Your task to perform on an android device: Show the shopping cart on target. Search for "bose soundlink mini" on target, select the first entry, add it to the cart, then select checkout. Image 0: 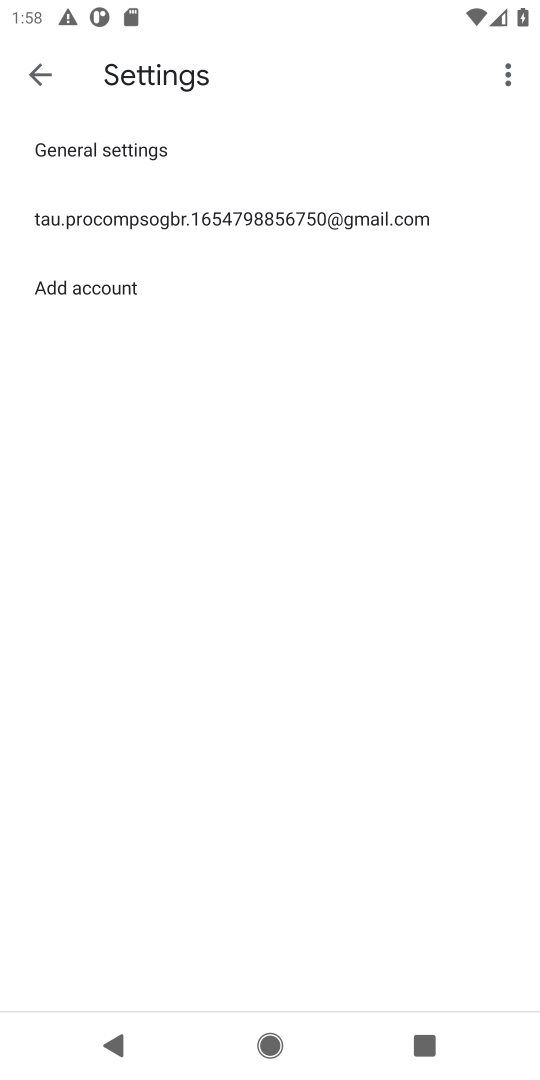
Step 0: press home button
Your task to perform on an android device: Show the shopping cart on target. Search for "bose soundlink mini" on target, select the first entry, add it to the cart, then select checkout. Image 1: 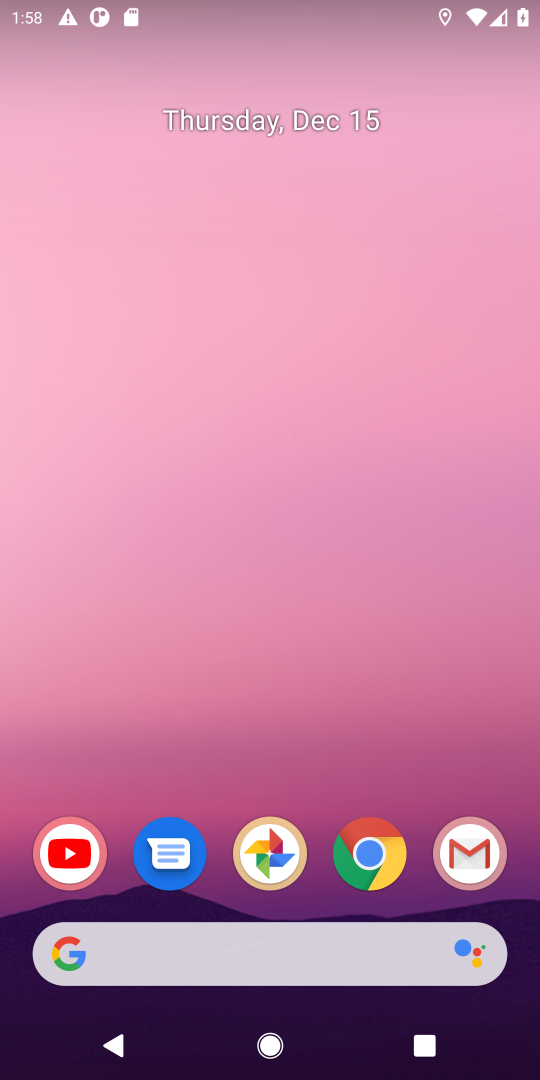
Step 1: drag from (234, 945) to (308, 231)
Your task to perform on an android device: Show the shopping cart on target. Search for "bose soundlink mini" on target, select the first entry, add it to the cart, then select checkout. Image 2: 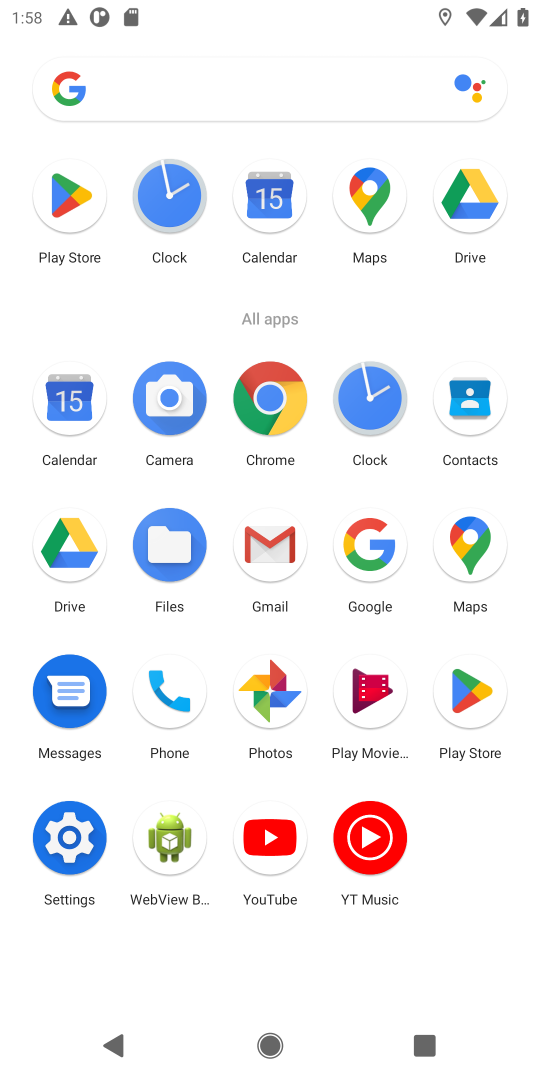
Step 2: click (363, 569)
Your task to perform on an android device: Show the shopping cart on target. Search for "bose soundlink mini" on target, select the first entry, add it to the cart, then select checkout. Image 3: 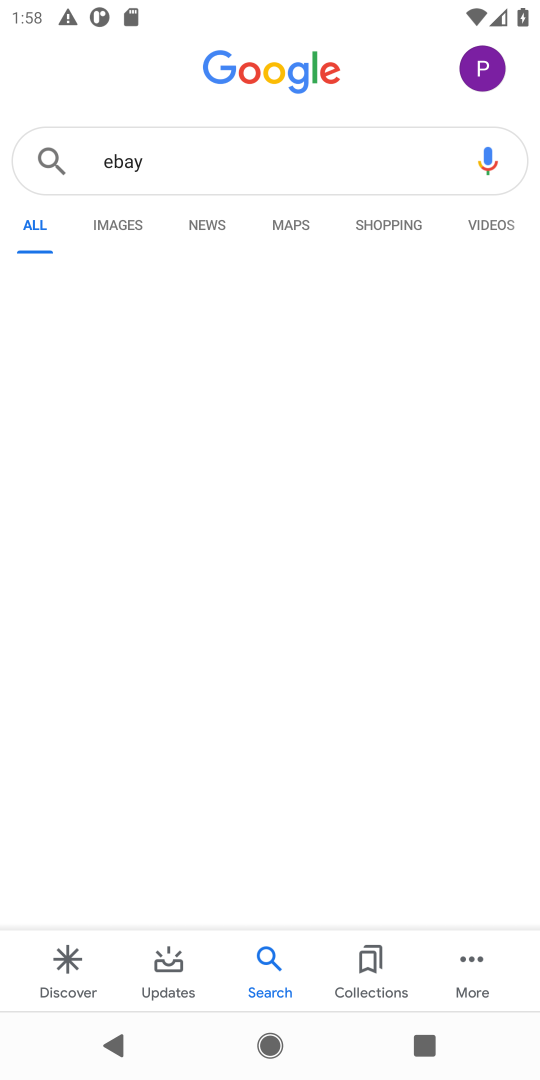
Step 3: click (143, 137)
Your task to perform on an android device: Show the shopping cart on target. Search for "bose soundlink mini" on target, select the first entry, add it to the cart, then select checkout. Image 4: 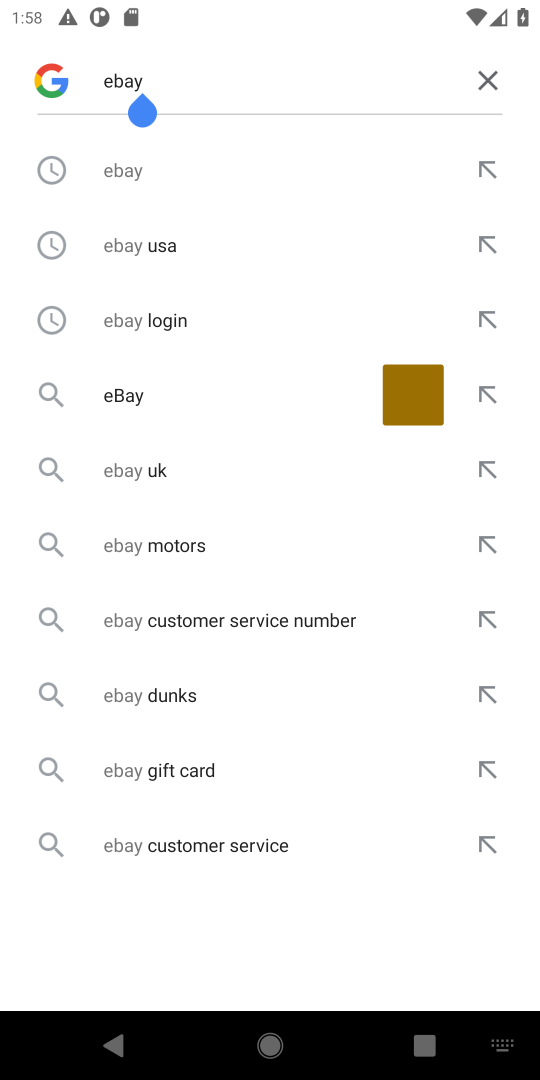
Step 4: click (484, 79)
Your task to perform on an android device: Show the shopping cart on target. Search for "bose soundlink mini" on target, select the first entry, add it to the cart, then select checkout. Image 5: 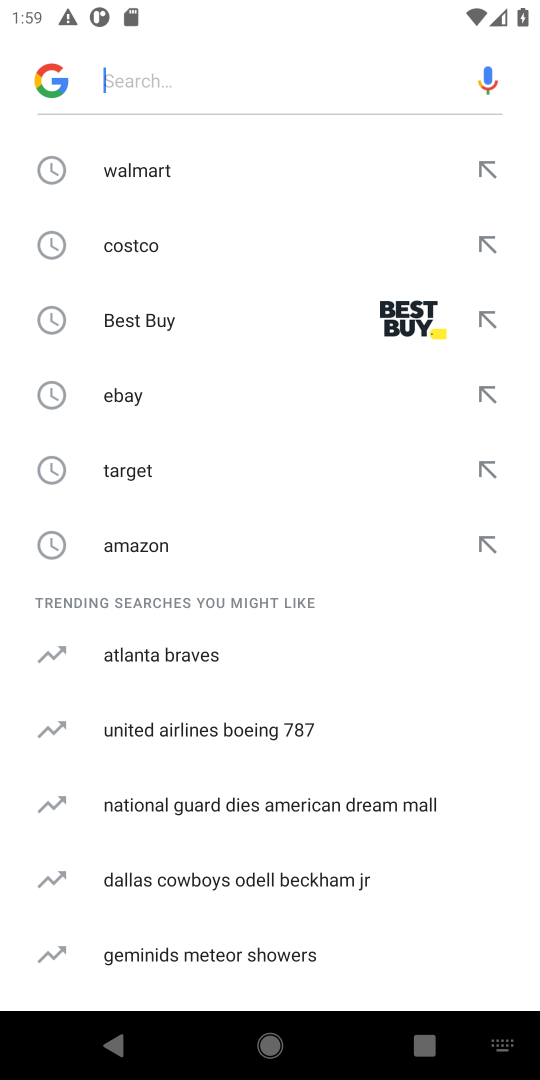
Step 5: click (135, 468)
Your task to perform on an android device: Show the shopping cart on target. Search for "bose soundlink mini" on target, select the first entry, add it to the cart, then select checkout. Image 6: 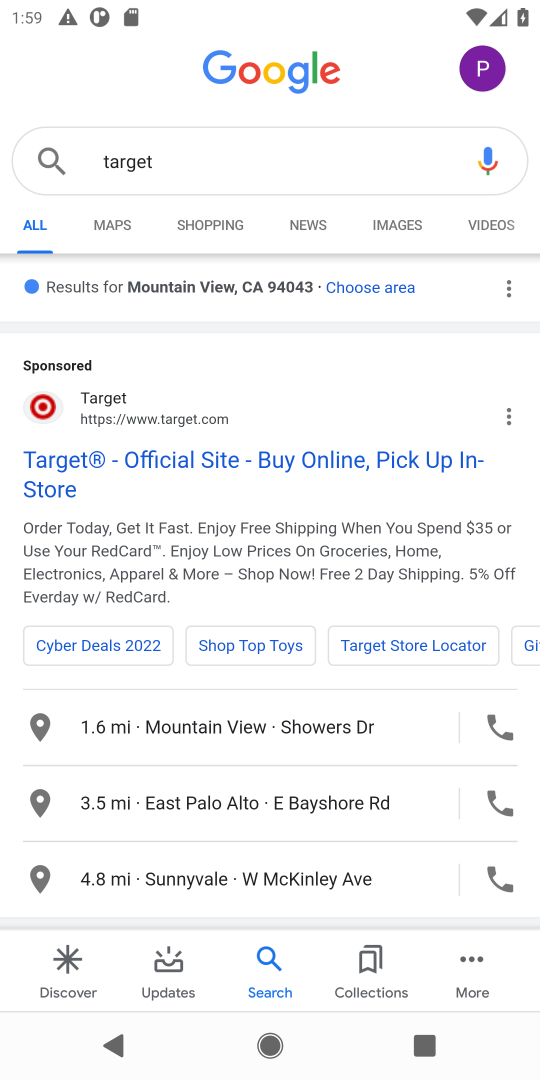
Step 6: click (126, 457)
Your task to perform on an android device: Show the shopping cart on target. Search for "bose soundlink mini" on target, select the first entry, add it to the cart, then select checkout. Image 7: 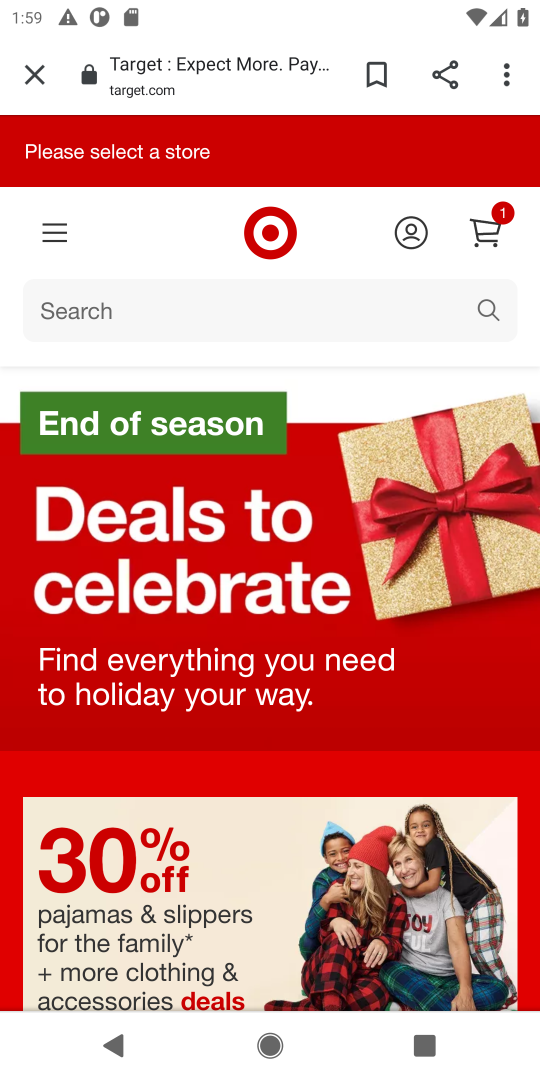
Step 7: click (508, 213)
Your task to perform on an android device: Show the shopping cart on target. Search for "bose soundlink mini" on target, select the first entry, add it to the cart, then select checkout. Image 8: 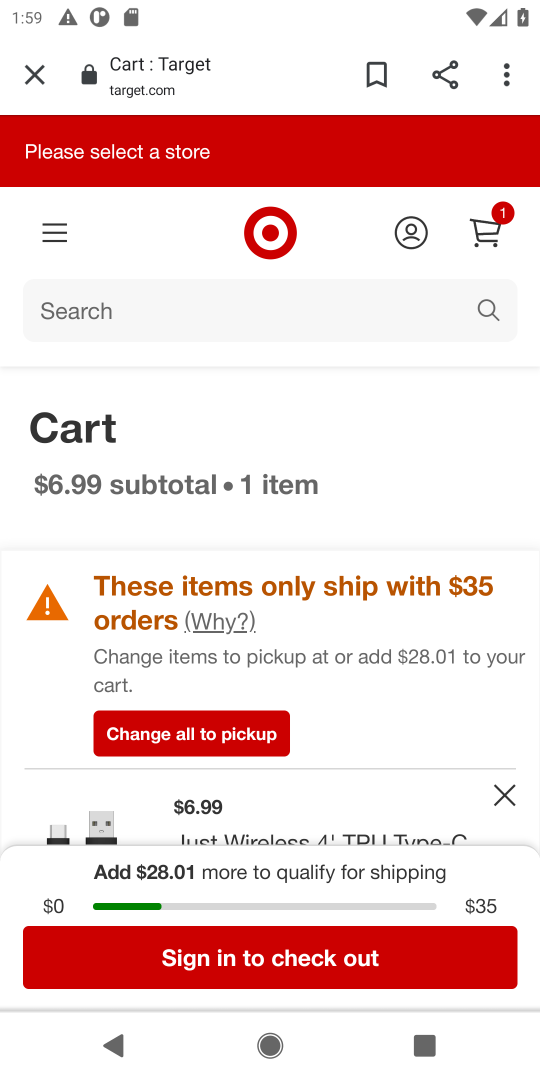
Step 8: click (495, 794)
Your task to perform on an android device: Show the shopping cart on target. Search for "bose soundlink mini" on target, select the first entry, add it to the cart, then select checkout. Image 9: 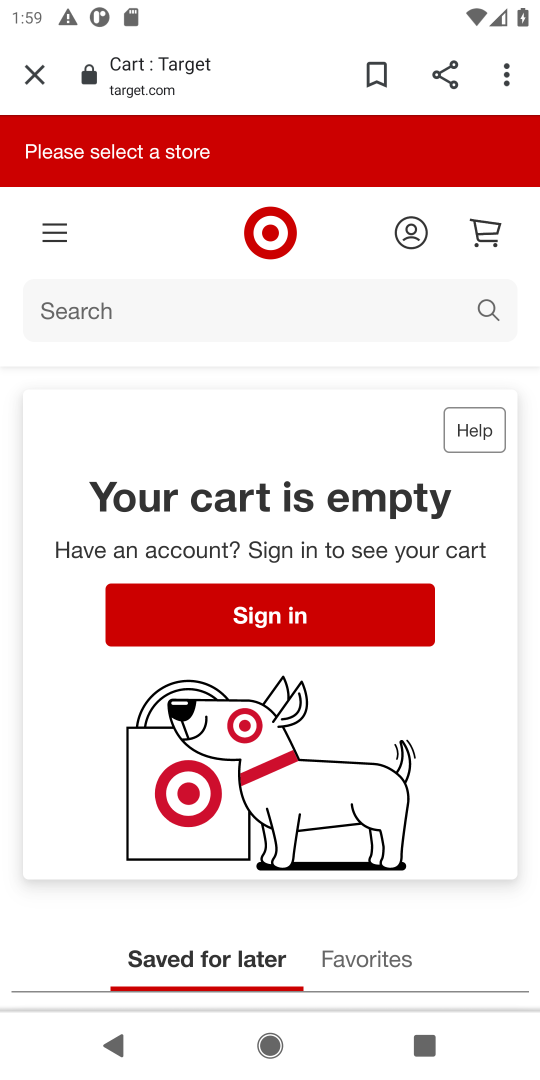
Step 9: type "bose soundlink mini"
Your task to perform on an android device: Show the shopping cart on target. Search for "bose soundlink mini" on target, select the first entry, add it to the cart, then select checkout. Image 10: 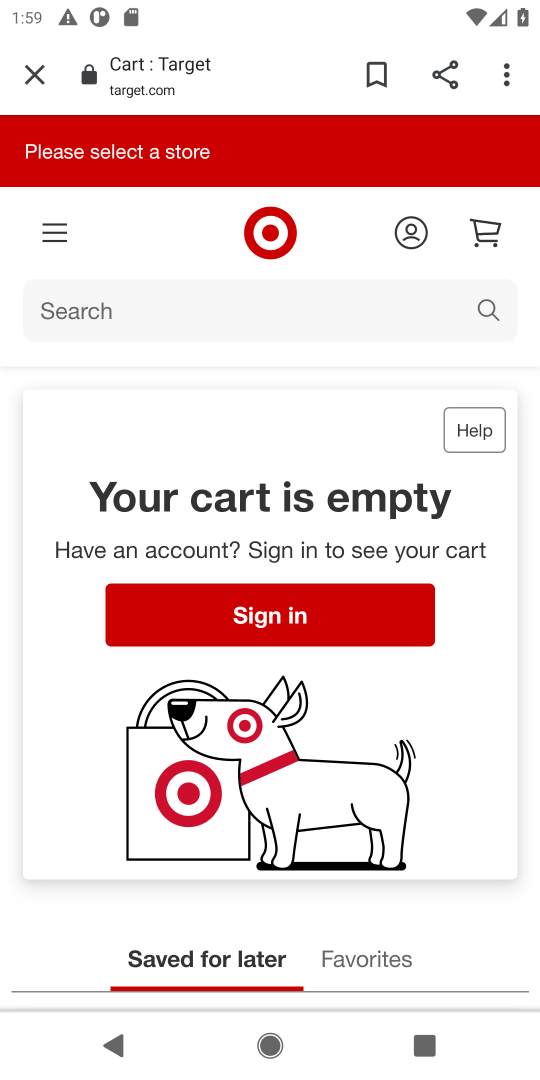
Step 10: click (117, 302)
Your task to perform on an android device: Show the shopping cart on target. Search for "bose soundlink mini" on target, select the first entry, add it to the cart, then select checkout. Image 11: 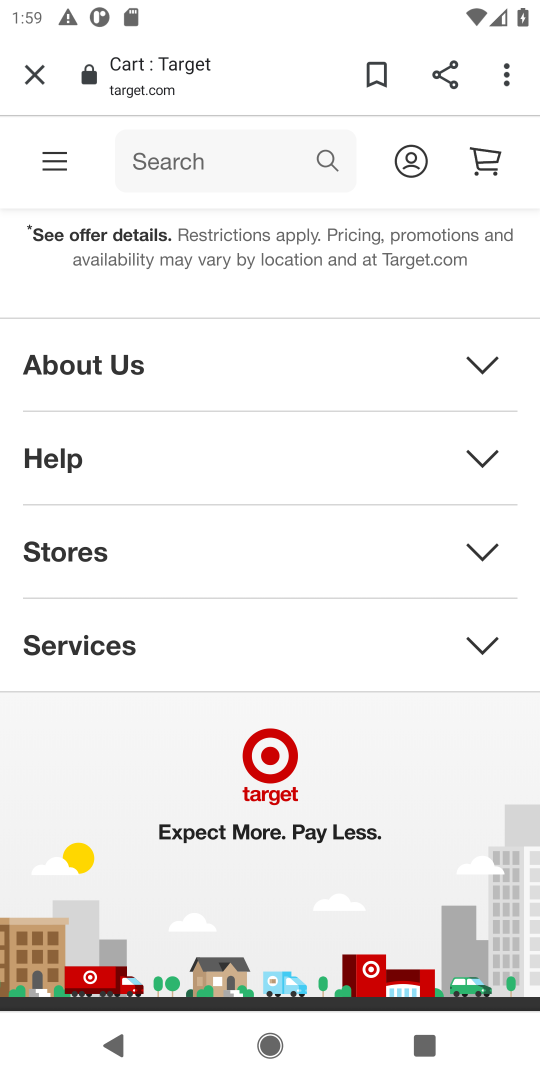
Step 11: click (160, 174)
Your task to perform on an android device: Show the shopping cart on target. Search for "bose soundlink mini" on target, select the first entry, add it to the cart, then select checkout. Image 12: 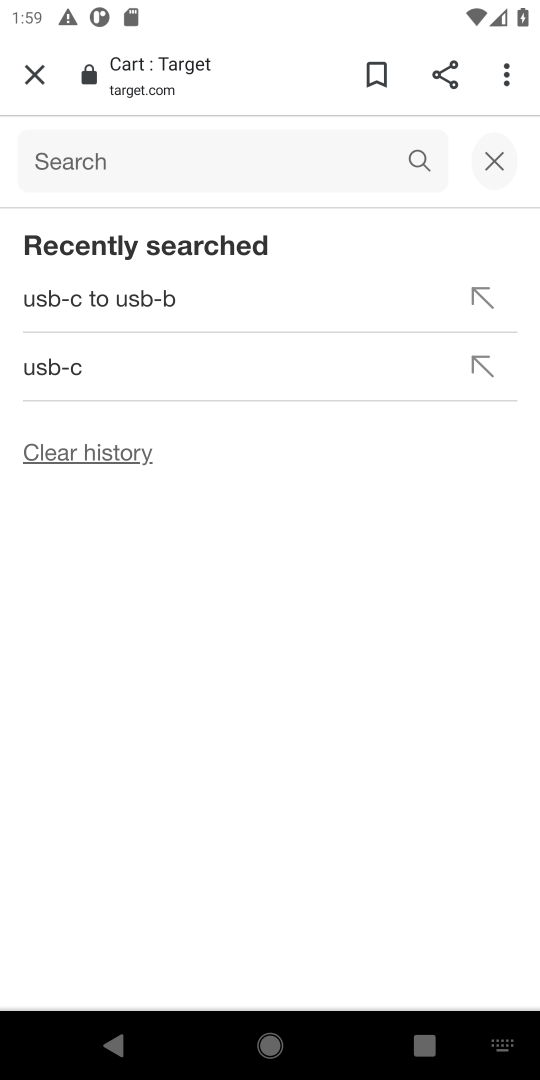
Step 12: type "bose soundlink mini"
Your task to perform on an android device: Show the shopping cart on target. Search for "bose soundlink mini" on target, select the first entry, add it to the cart, then select checkout. Image 13: 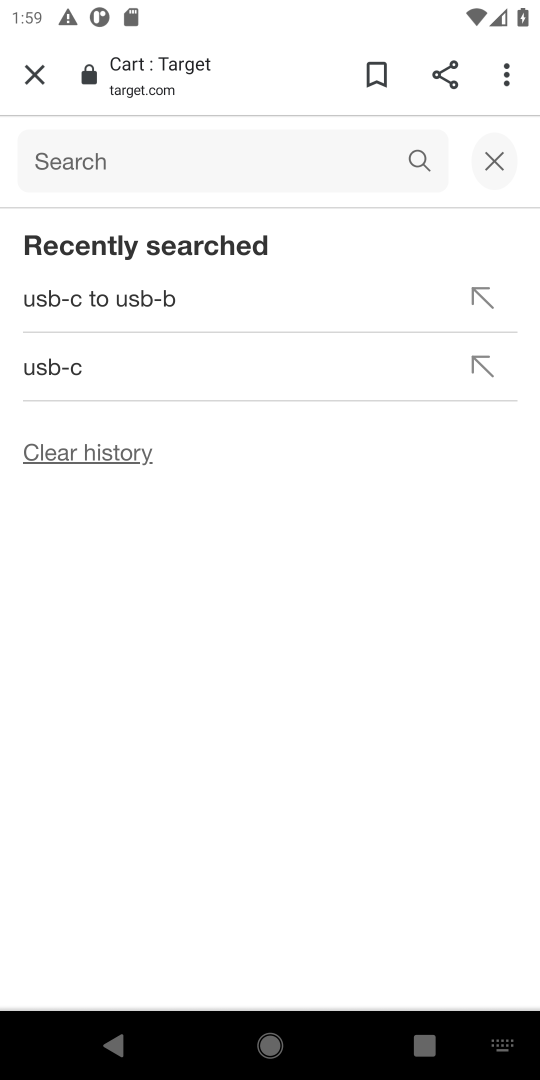
Step 13: click (417, 156)
Your task to perform on an android device: Show the shopping cart on target. Search for "bose soundlink mini" on target, select the first entry, add it to the cart, then select checkout. Image 14: 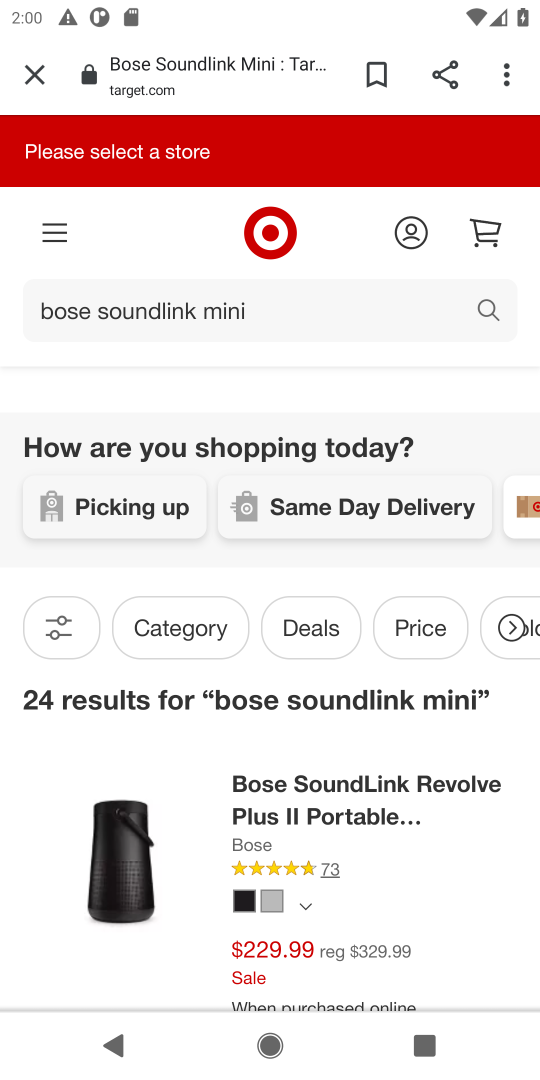
Step 14: drag from (347, 911) to (391, 453)
Your task to perform on an android device: Show the shopping cart on target. Search for "bose soundlink mini" on target, select the first entry, add it to the cart, then select checkout. Image 15: 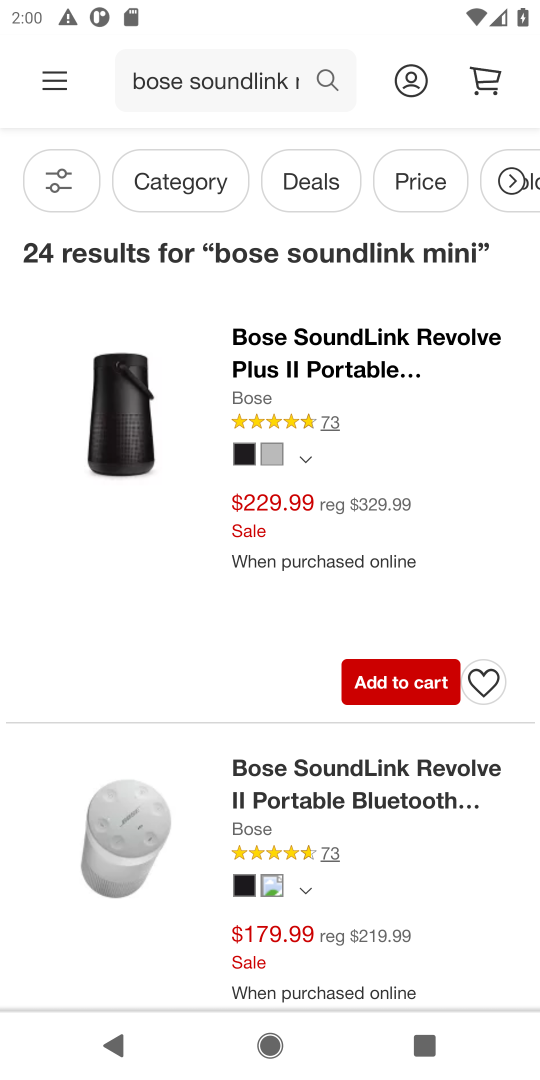
Step 15: click (417, 692)
Your task to perform on an android device: Show the shopping cart on target. Search for "bose soundlink mini" on target, select the first entry, add it to the cart, then select checkout. Image 16: 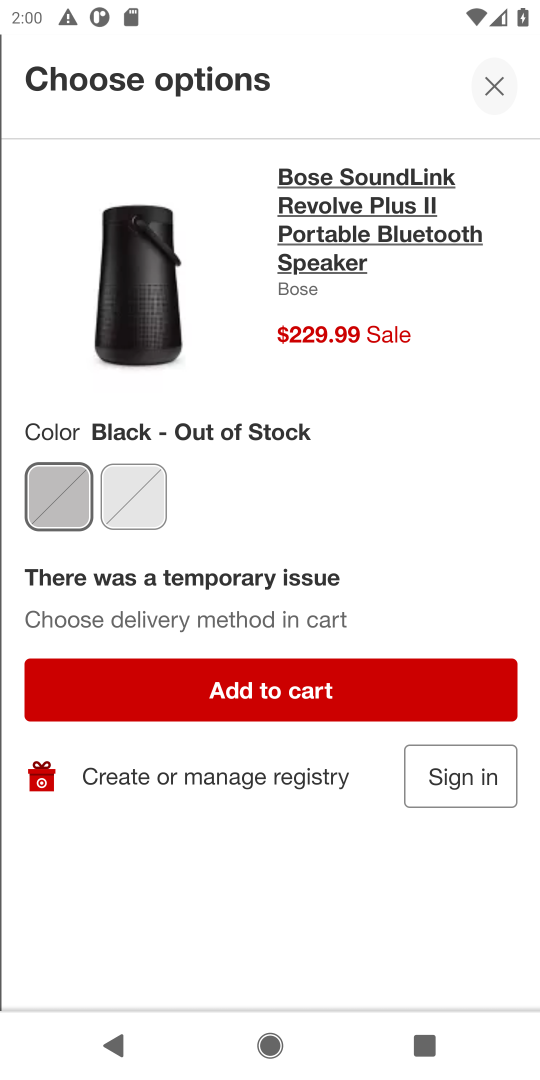
Step 16: click (312, 683)
Your task to perform on an android device: Show the shopping cart on target. Search for "bose soundlink mini" on target, select the first entry, add it to the cart, then select checkout. Image 17: 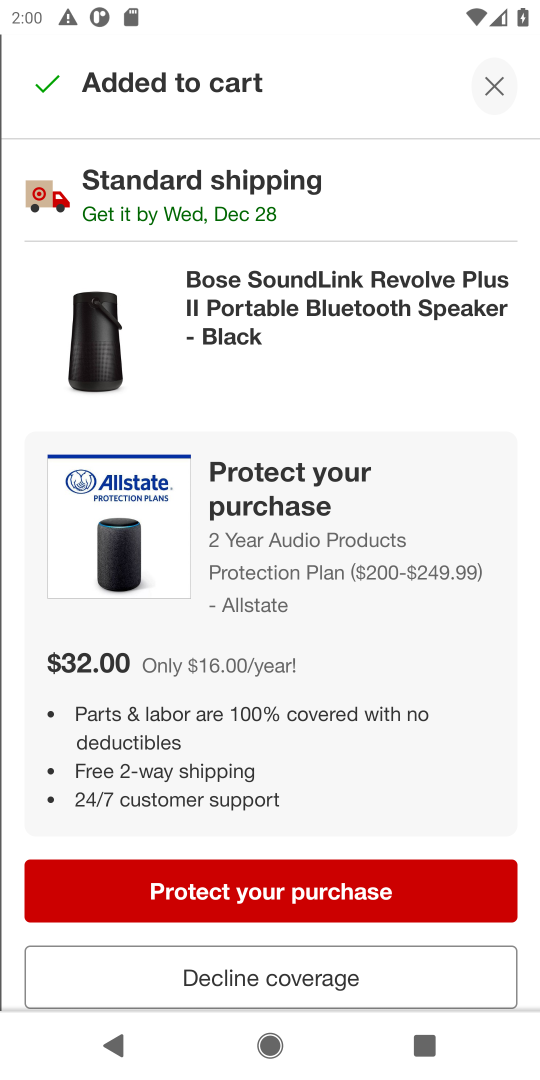
Step 17: click (501, 94)
Your task to perform on an android device: Show the shopping cart on target. Search for "bose soundlink mini" on target, select the first entry, add it to the cart, then select checkout. Image 18: 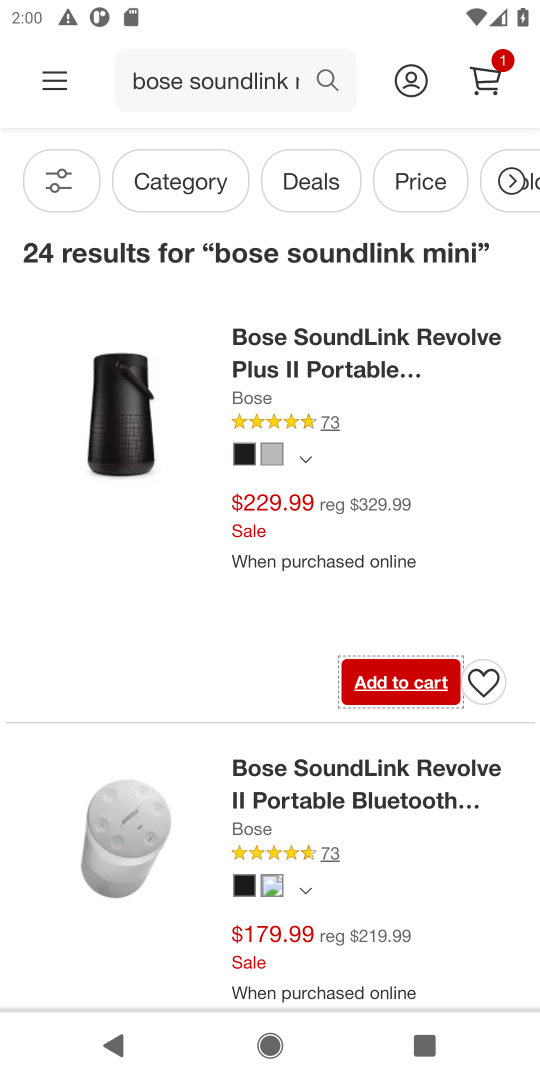
Step 18: click (491, 84)
Your task to perform on an android device: Show the shopping cart on target. Search for "bose soundlink mini" on target, select the first entry, add it to the cart, then select checkout. Image 19: 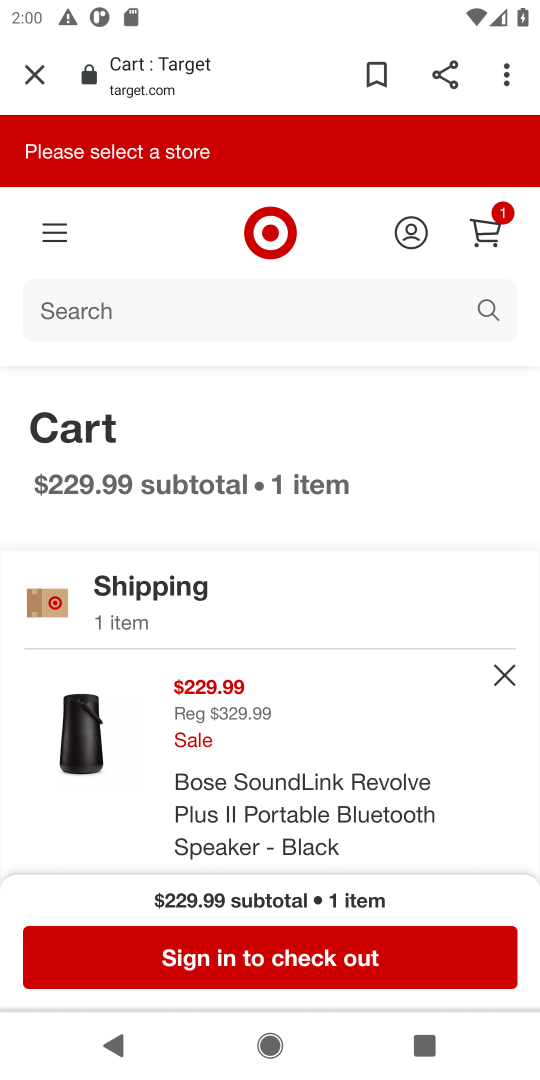
Step 19: click (271, 968)
Your task to perform on an android device: Show the shopping cart on target. Search for "bose soundlink mini" on target, select the first entry, add it to the cart, then select checkout. Image 20: 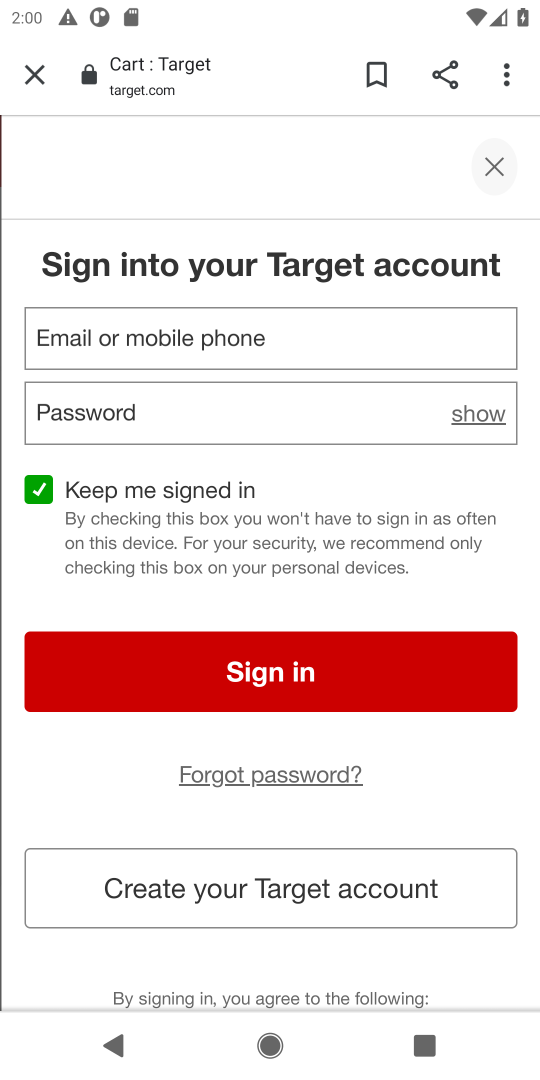
Step 20: task complete